Your task to perform on an android device: Do I have any events tomorrow? Image 0: 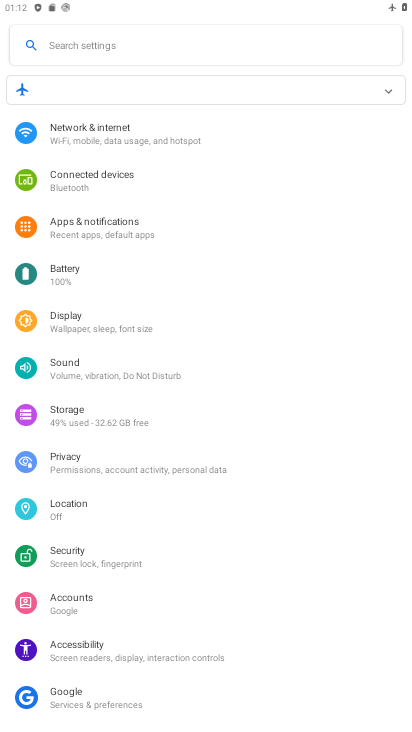
Step 0: press home button
Your task to perform on an android device: Do I have any events tomorrow? Image 1: 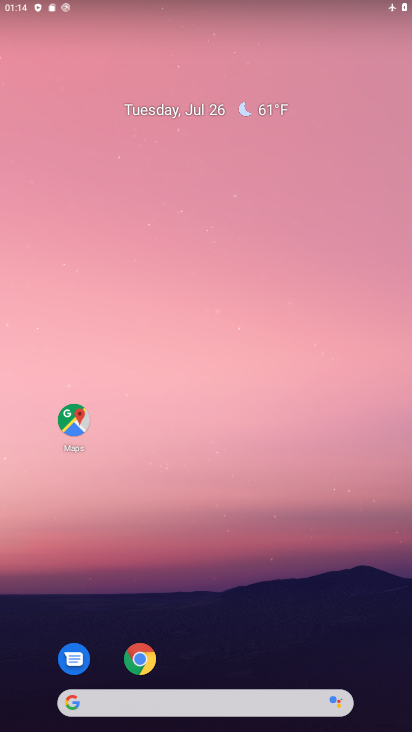
Step 1: drag from (293, 556) to (231, 90)
Your task to perform on an android device: Do I have any events tomorrow? Image 2: 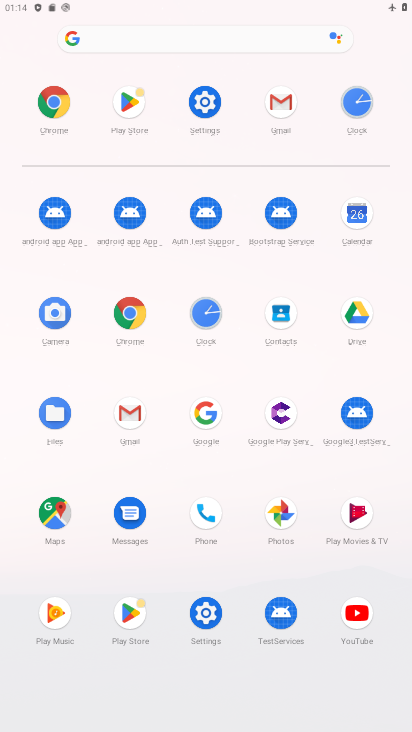
Step 2: click (366, 205)
Your task to perform on an android device: Do I have any events tomorrow? Image 3: 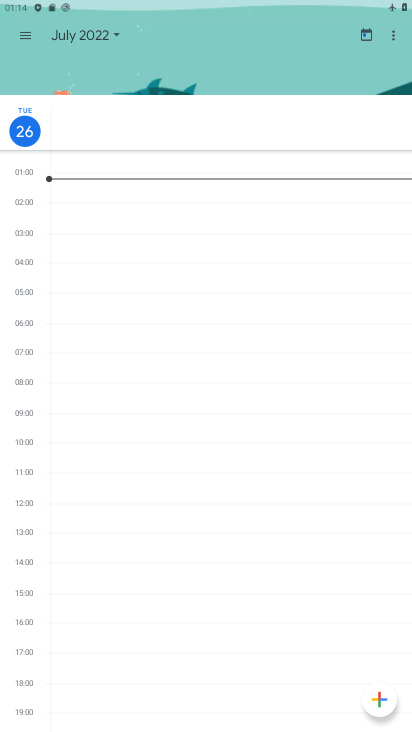
Step 3: click (21, 35)
Your task to perform on an android device: Do I have any events tomorrow? Image 4: 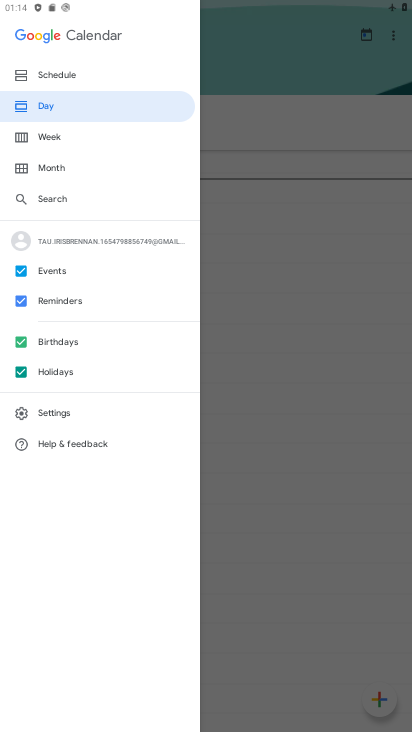
Step 4: click (335, 219)
Your task to perform on an android device: Do I have any events tomorrow? Image 5: 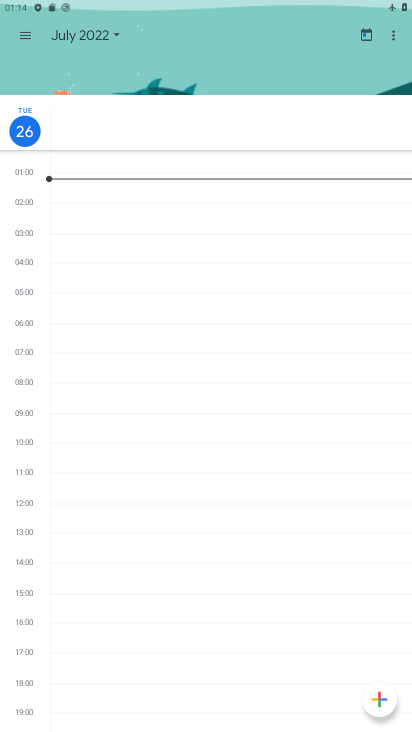
Step 5: click (236, 195)
Your task to perform on an android device: Do I have any events tomorrow? Image 6: 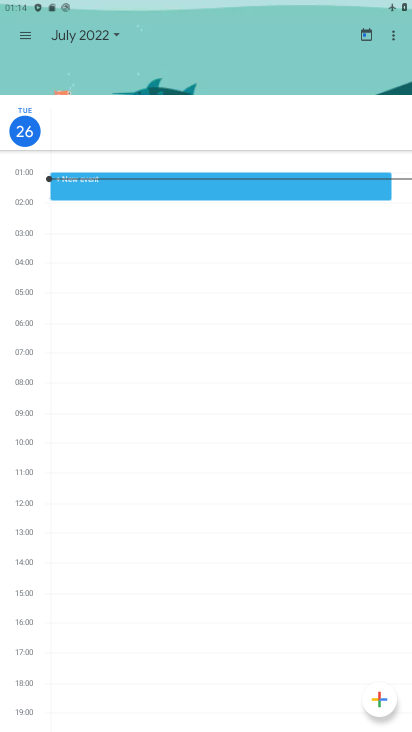
Step 6: click (79, 42)
Your task to perform on an android device: Do I have any events tomorrow? Image 7: 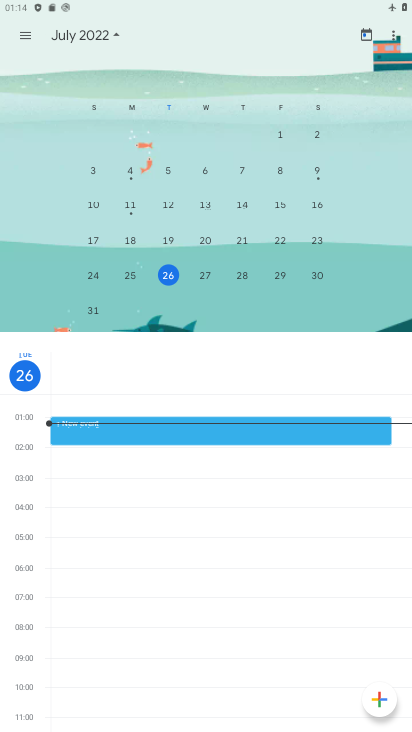
Step 7: click (200, 277)
Your task to perform on an android device: Do I have any events tomorrow? Image 8: 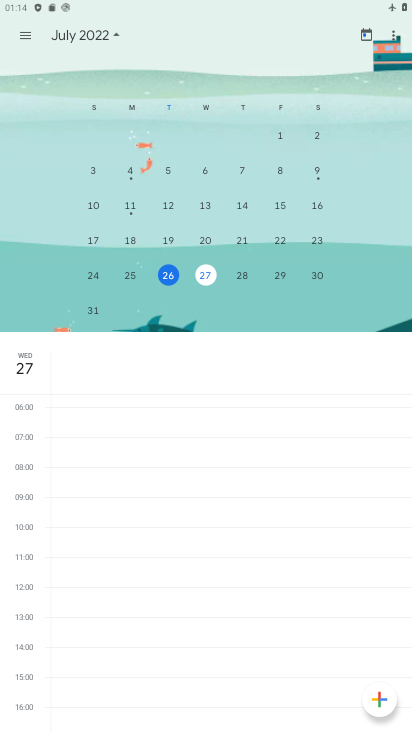
Step 8: task complete